Your task to perform on an android device: set default search engine in the chrome app Image 0: 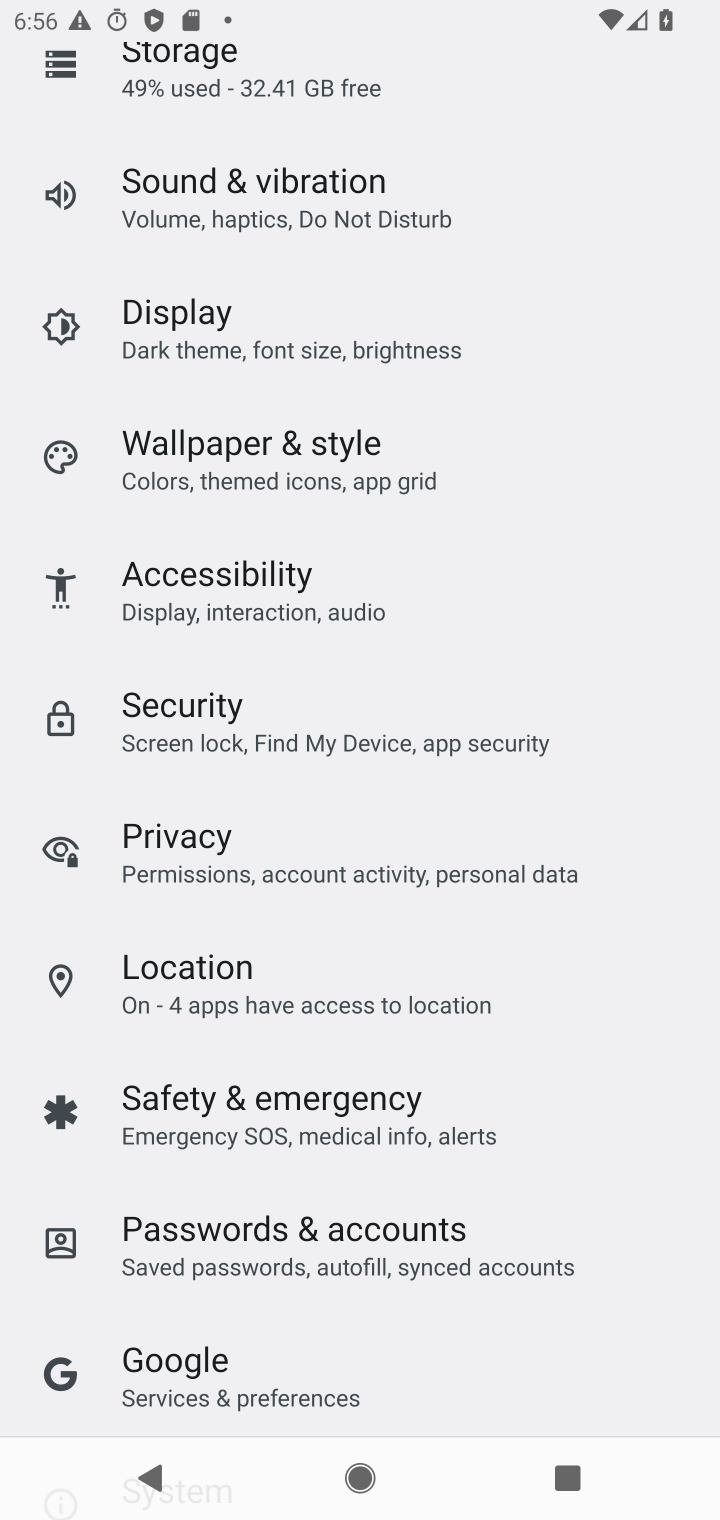
Step 0: press home button
Your task to perform on an android device: set default search engine in the chrome app Image 1: 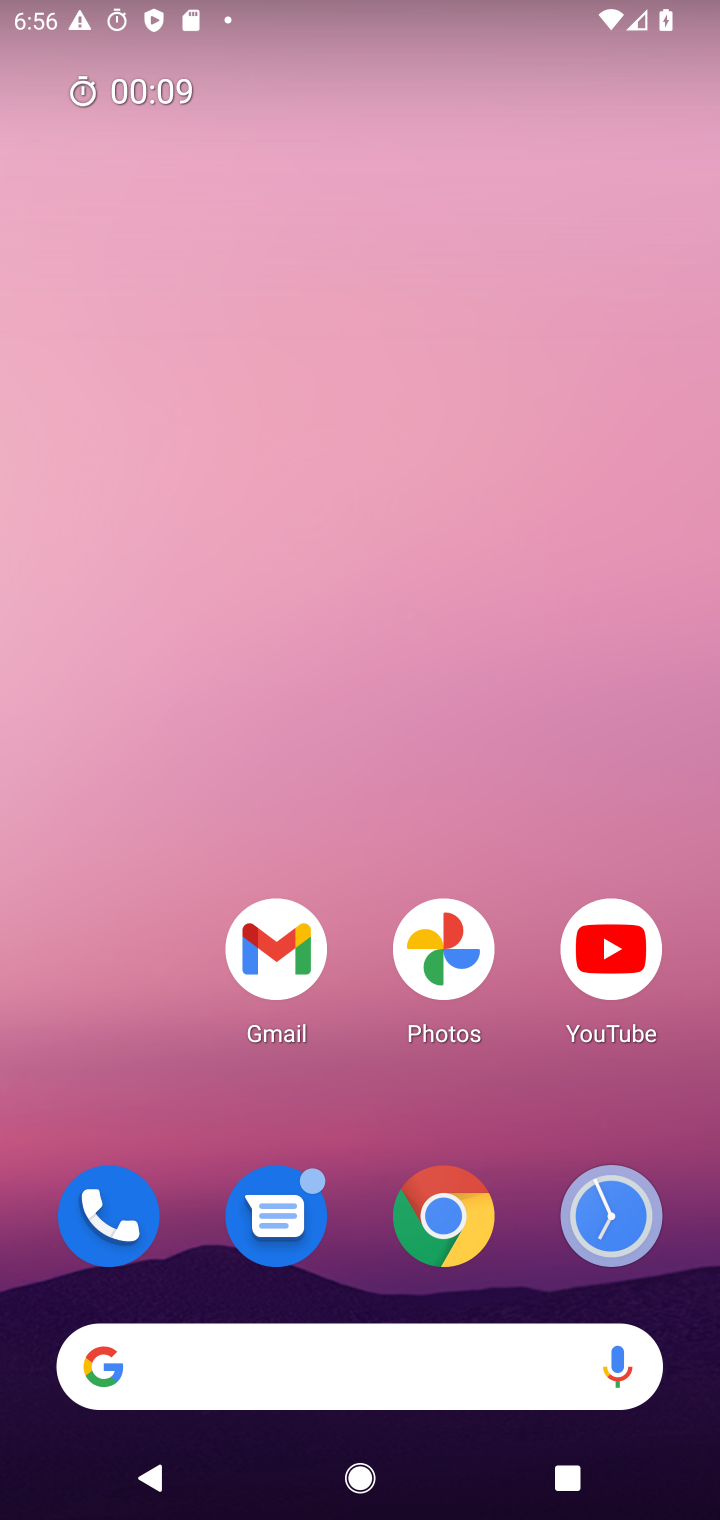
Step 1: drag from (382, 1083) to (352, 8)
Your task to perform on an android device: set default search engine in the chrome app Image 2: 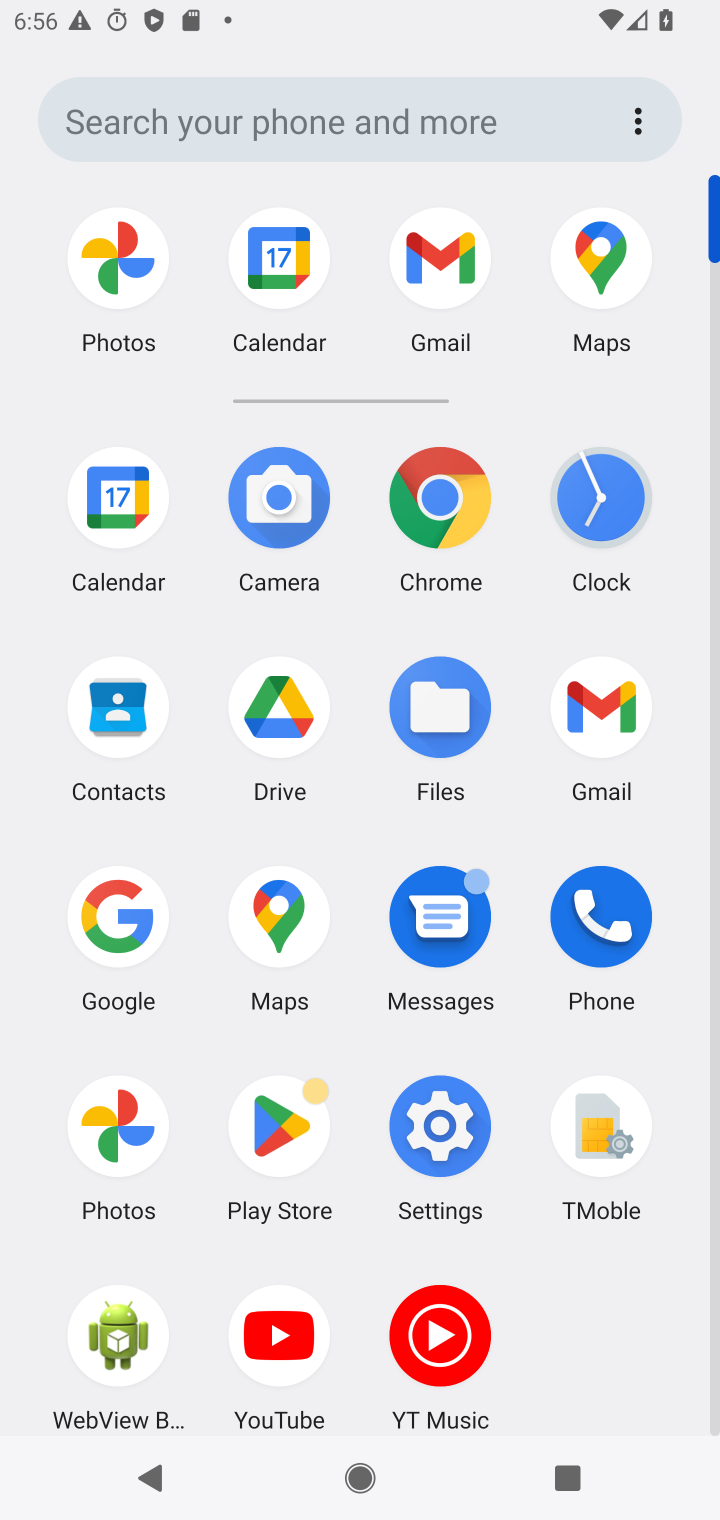
Step 2: click (436, 522)
Your task to perform on an android device: set default search engine in the chrome app Image 3: 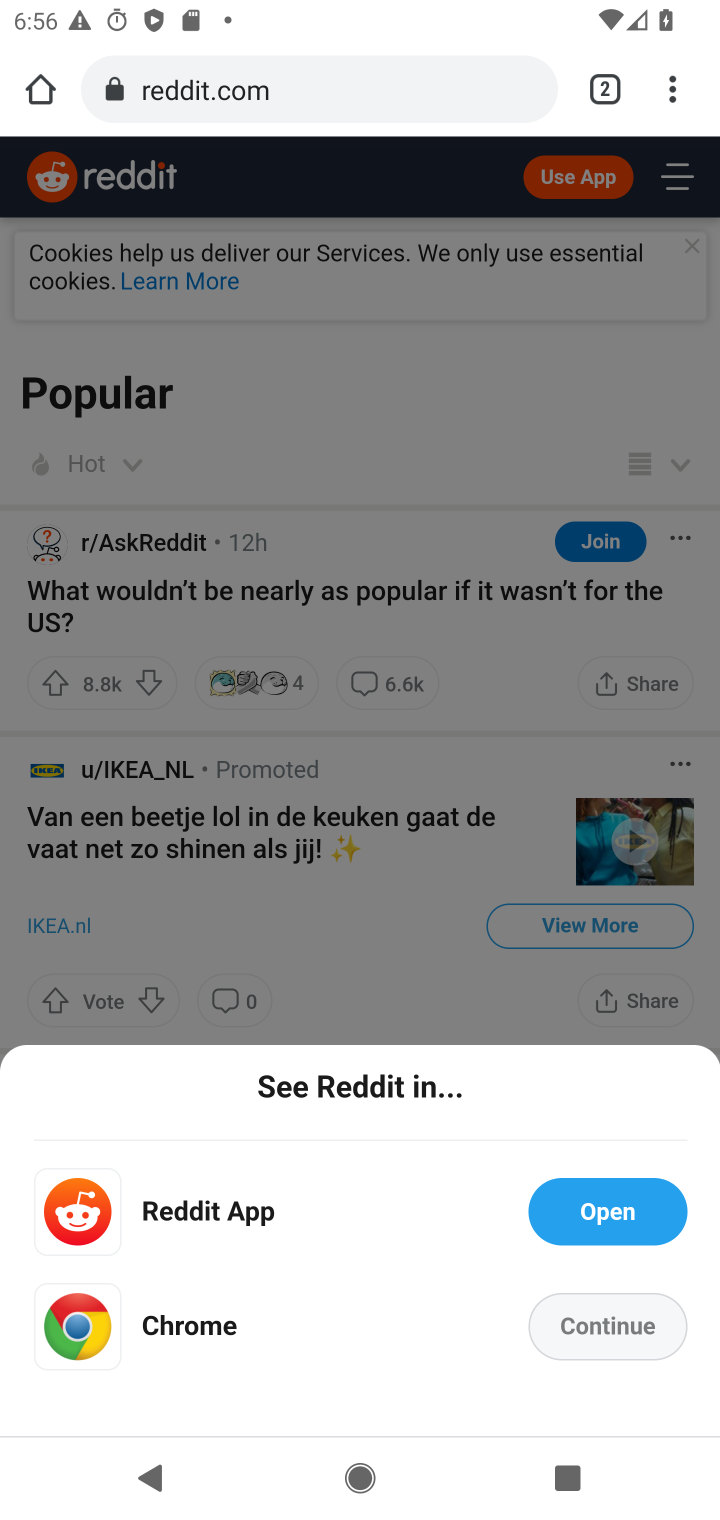
Step 3: drag from (688, 75) to (441, 1207)
Your task to perform on an android device: set default search engine in the chrome app Image 4: 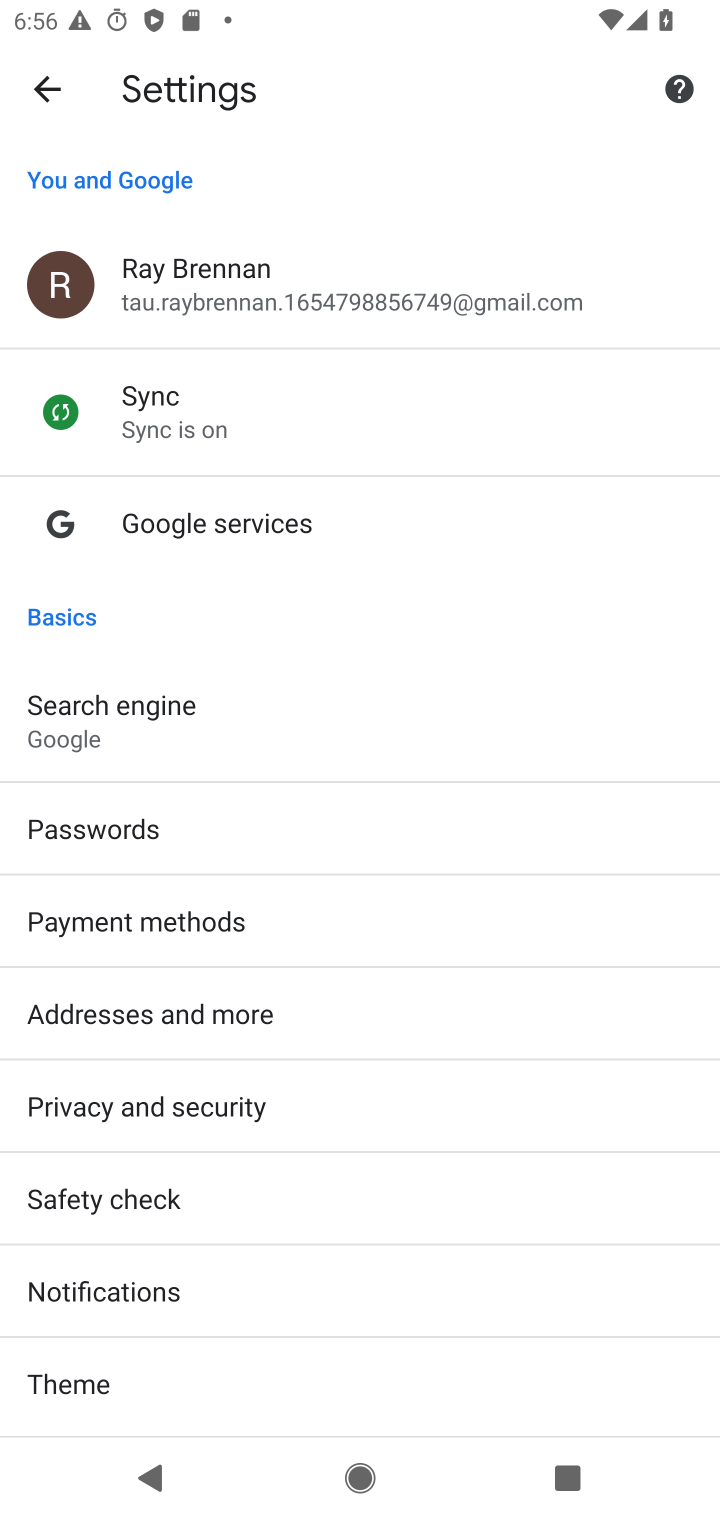
Step 4: click (161, 719)
Your task to perform on an android device: set default search engine in the chrome app Image 5: 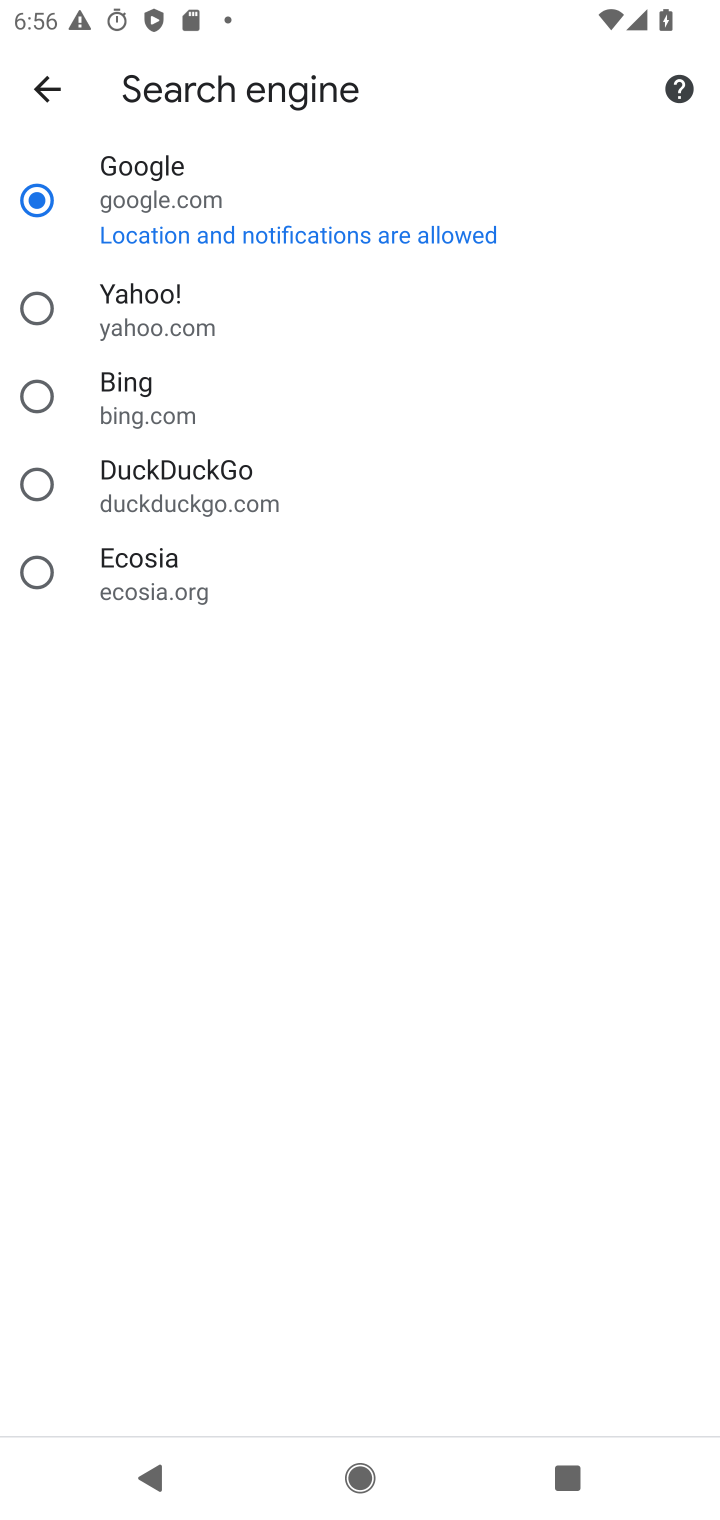
Step 5: task complete